Your task to perform on an android device: Open location settings Image 0: 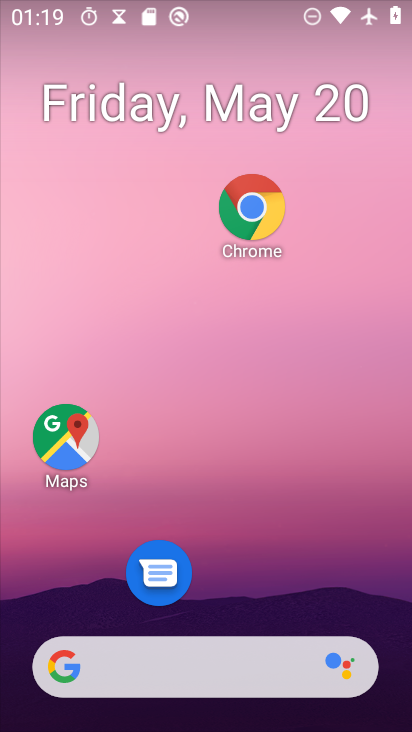
Step 0: drag from (302, 508) to (362, 46)
Your task to perform on an android device: Open location settings Image 1: 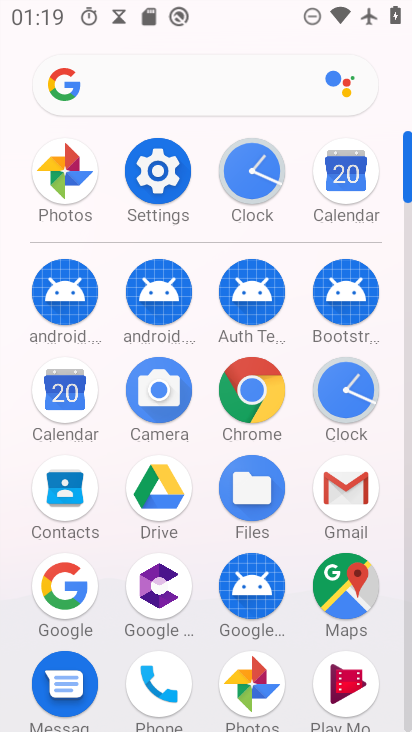
Step 1: click (172, 179)
Your task to perform on an android device: Open location settings Image 2: 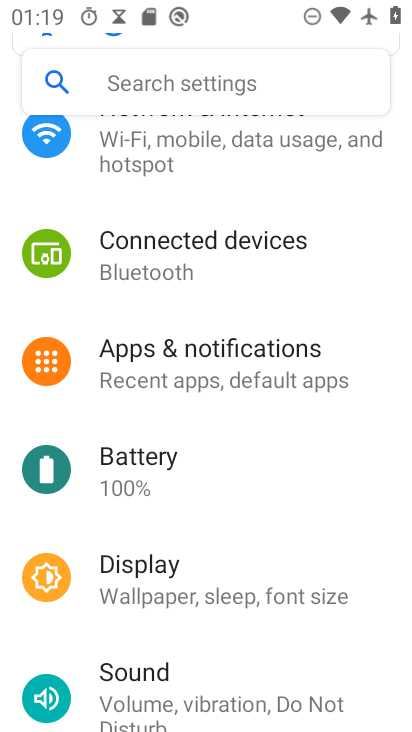
Step 2: drag from (247, 295) to (265, 74)
Your task to perform on an android device: Open location settings Image 3: 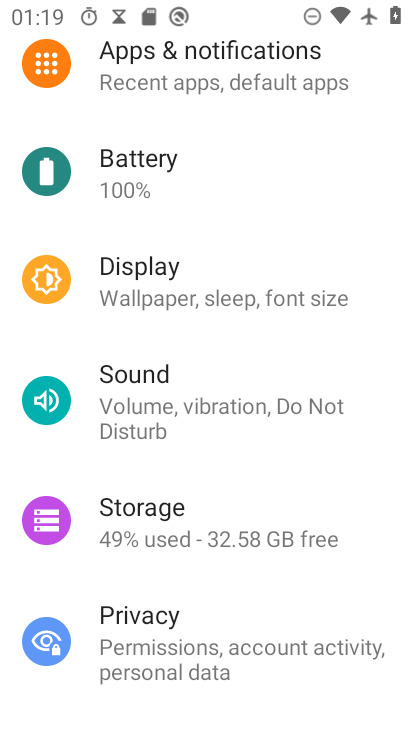
Step 3: drag from (187, 547) to (184, 122)
Your task to perform on an android device: Open location settings Image 4: 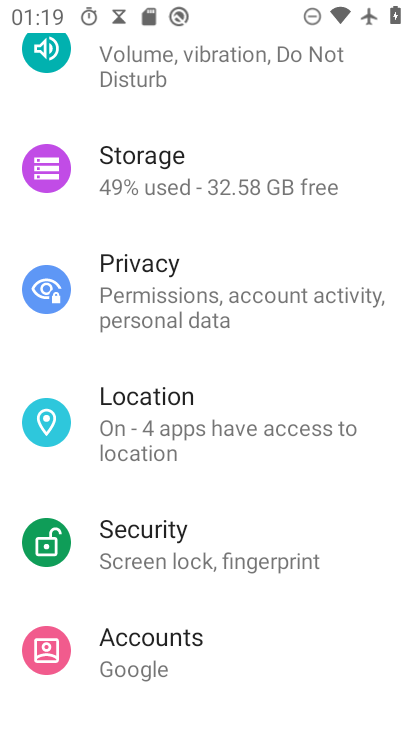
Step 4: click (177, 421)
Your task to perform on an android device: Open location settings Image 5: 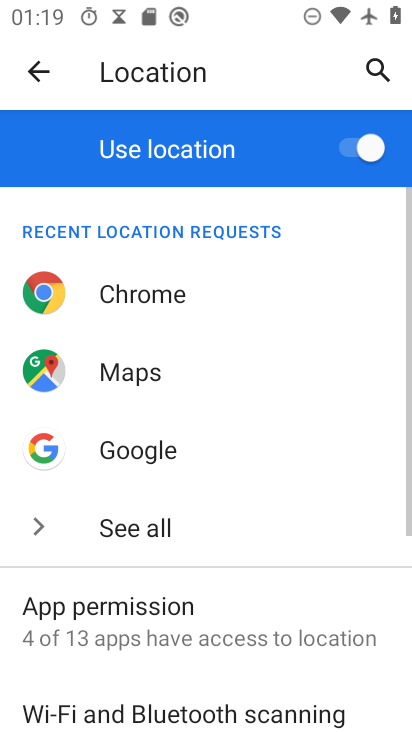
Step 5: task complete